Your task to perform on an android device: see creations saved in the google photos Image 0: 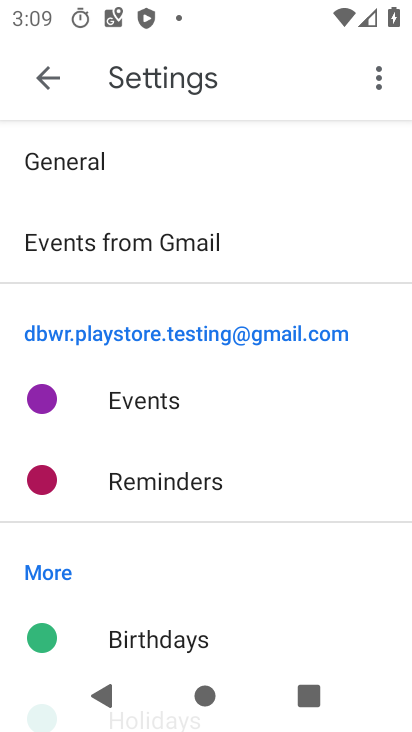
Step 0: press home button
Your task to perform on an android device: see creations saved in the google photos Image 1: 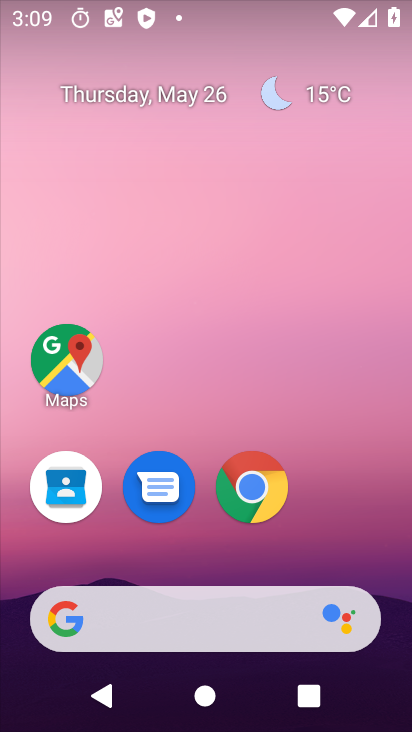
Step 1: drag from (189, 564) to (205, 135)
Your task to perform on an android device: see creations saved in the google photos Image 2: 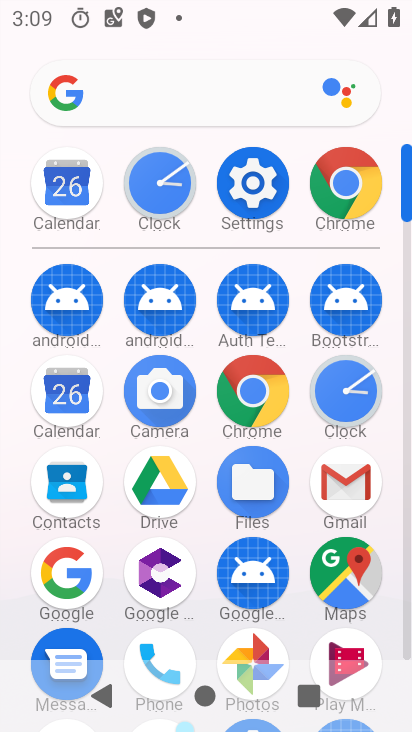
Step 2: drag from (205, 536) to (235, 213)
Your task to perform on an android device: see creations saved in the google photos Image 3: 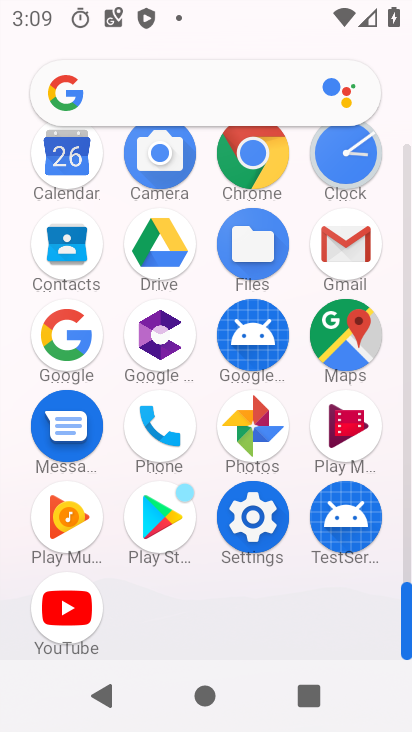
Step 3: click (255, 410)
Your task to perform on an android device: see creations saved in the google photos Image 4: 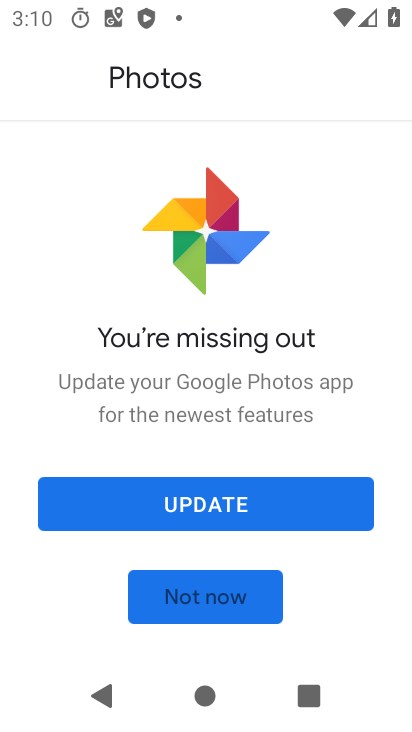
Step 4: click (232, 584)
Your task to perform on an android device: see creations saved in the google photos Image 5: 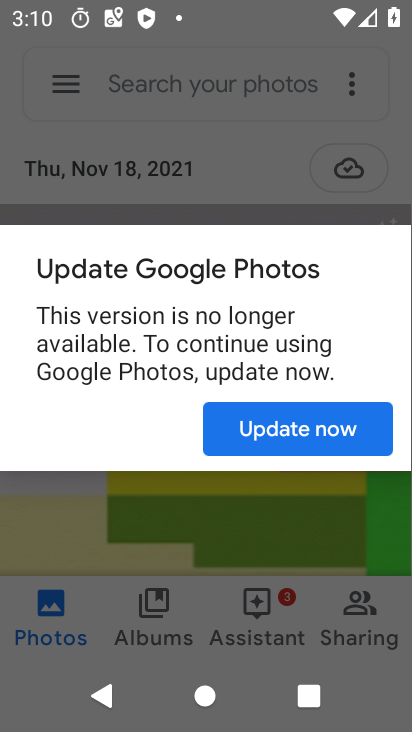
Step 5: click (334, 418)
Your task to perform on an android device: see creations saved in the google photos Image 6: 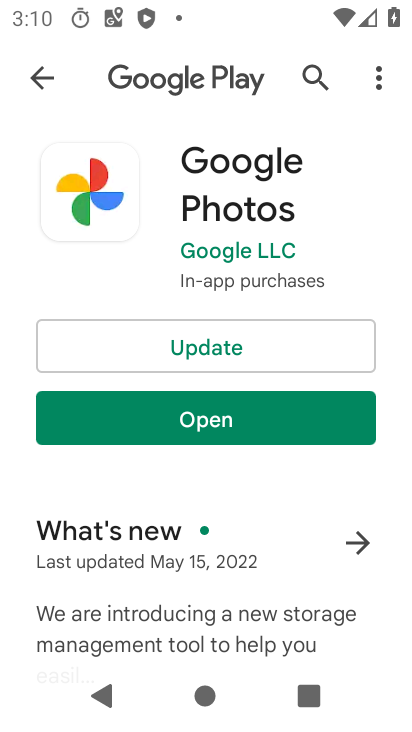
Step 6: click (302, 399)
Your task to perform on an android device: see creations saved in the google photos Image 7: 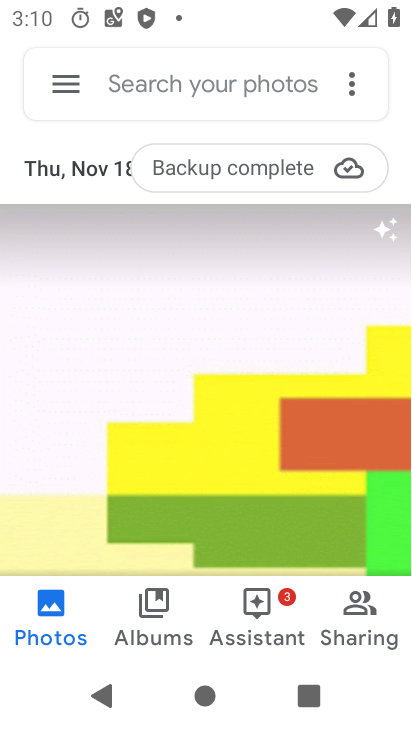
Step 7: click (218, 90)
Your task to perform on an android device: see creations saved in the google photos Image 8: 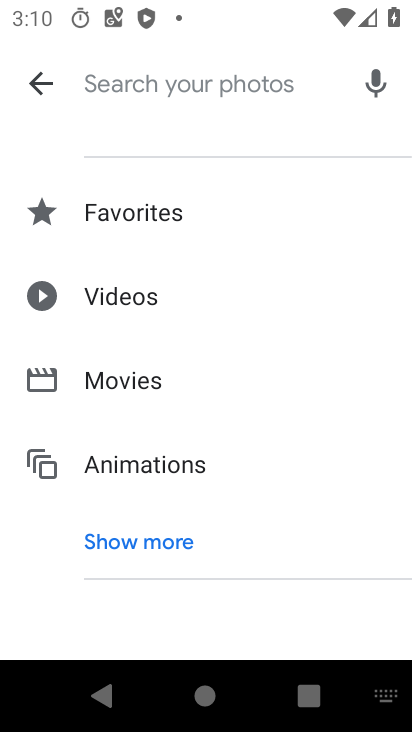
Step 8: click (175, 533)
Your task to perform on an android device: see creations saved in the google photos Image 9: 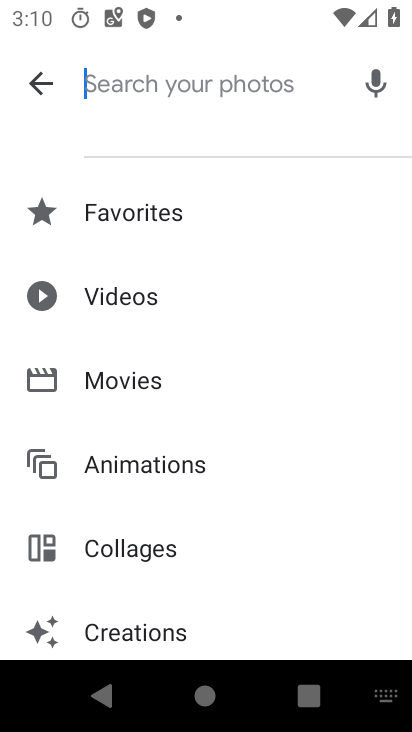
Step 9: drag from (184, 581) to (227, 330)
Your task to perform on an android device: see creations saved in the google photos Image 10: 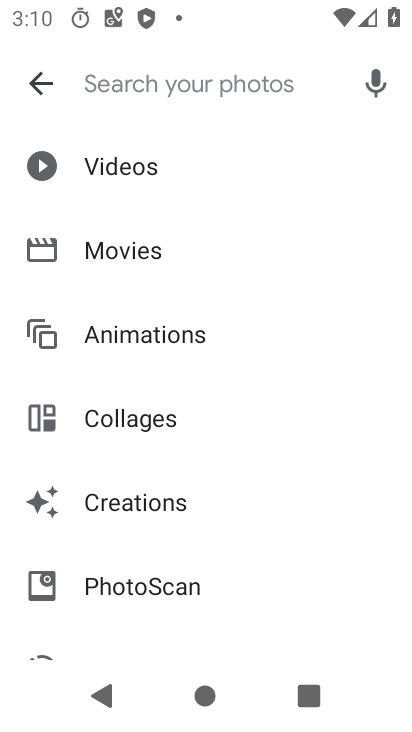
Step 10: click (195, 511)
Your task to perform on an android device: see creations saved in the google photos Image 11: 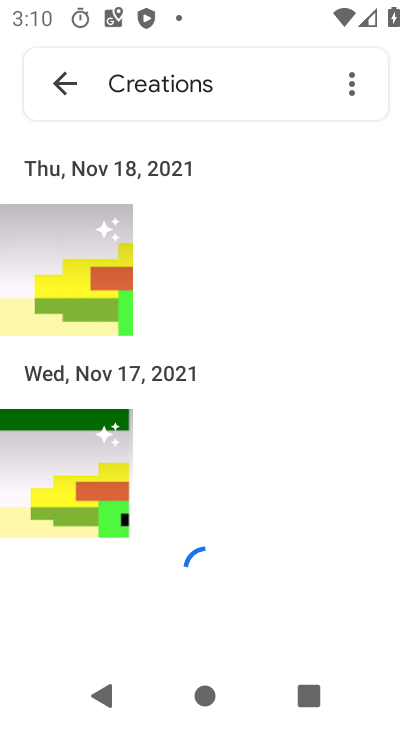
Step 11: task complete